Your task to perform on an android device: Go to network settings Image 0: 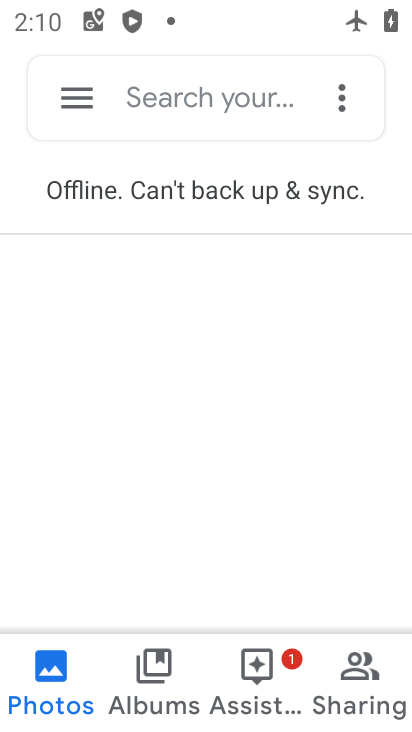
Step 0: press home button
Your task to perform on an android device: Go to network settings Image 1: 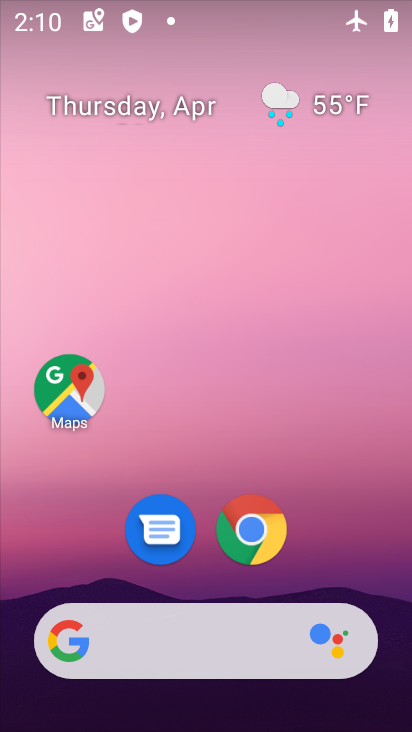
Step 1: drag from (215, 453) to (101, 59)
Your task to perform on an android device: Go to network settings Image 2: 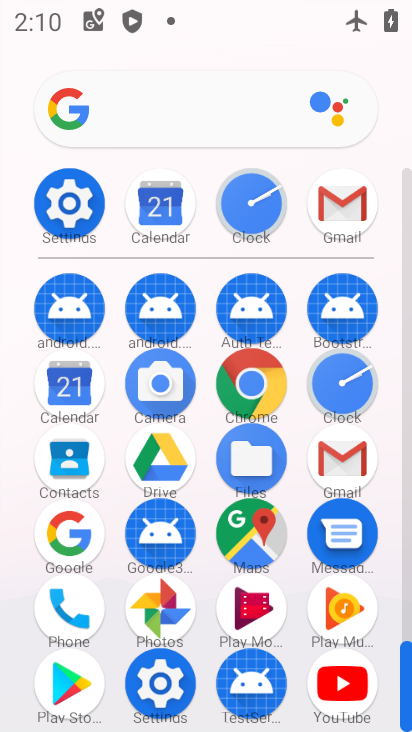
Step 2: click (64, 224)
Your task to perform on an android device: Go to network settings Image 3: 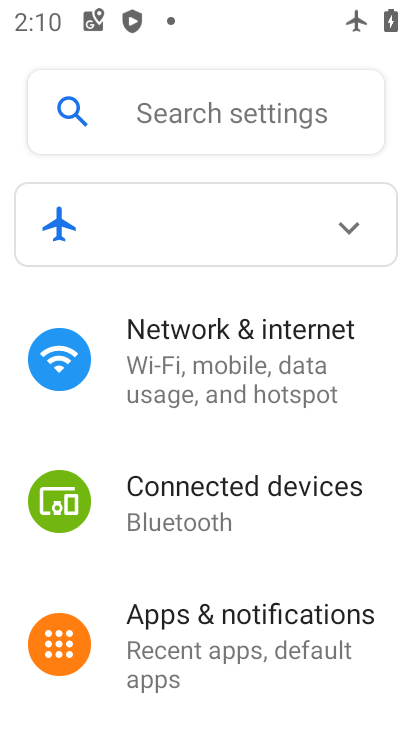
Step 3: click (171, 353)
Your task to perform on an android device: Go to network settings Image 4: 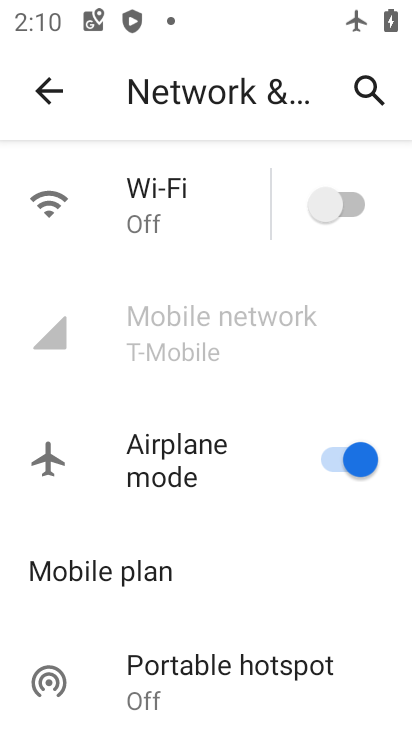
Step 4: task complete